Your task to perform on an android device: turn off sleep mode Image 0: 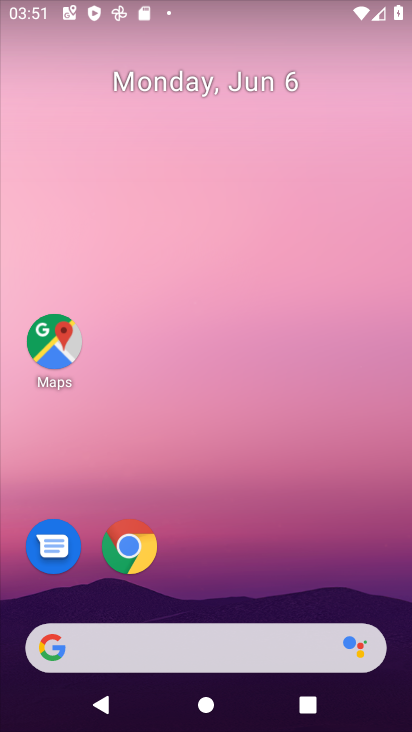
Step 0: drag from (284, 557) to (323, 39)
Your task to perform on an android device: turn off sleep mode Image 1: 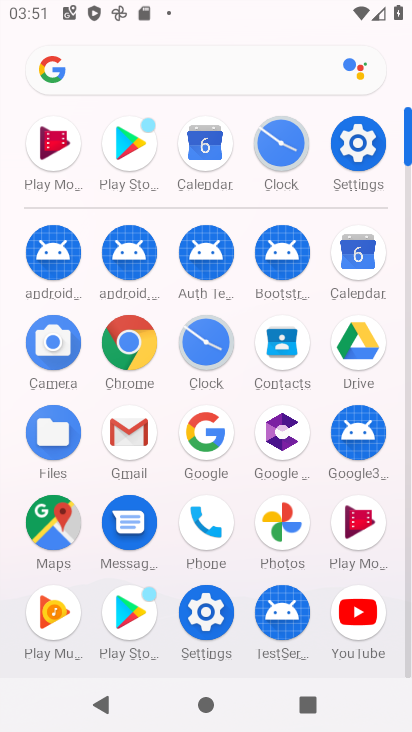
Step 1: click (343, 154)
Your task to perform on an android device: turn off sleep mode Image 2: 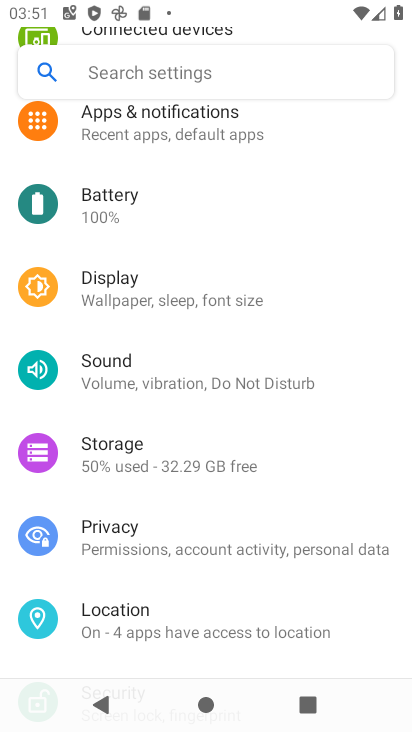
Step 2: task complete